Your task to perform on an android device: turn on translation in the chrome app Image 0: 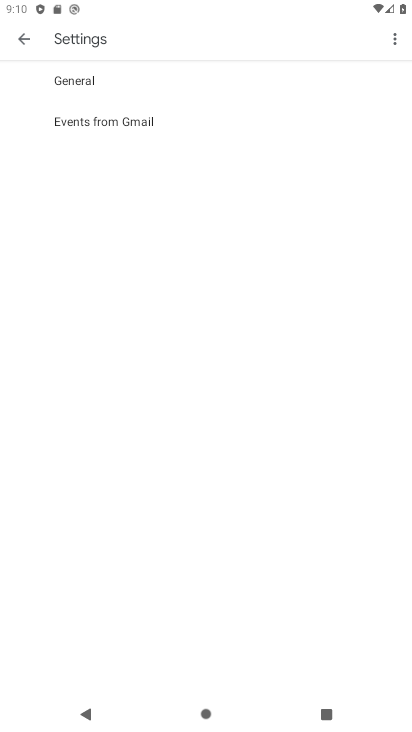
Step 0: press home button
Your task to perform on an android device: turn on translation in the chrome app Image 1: 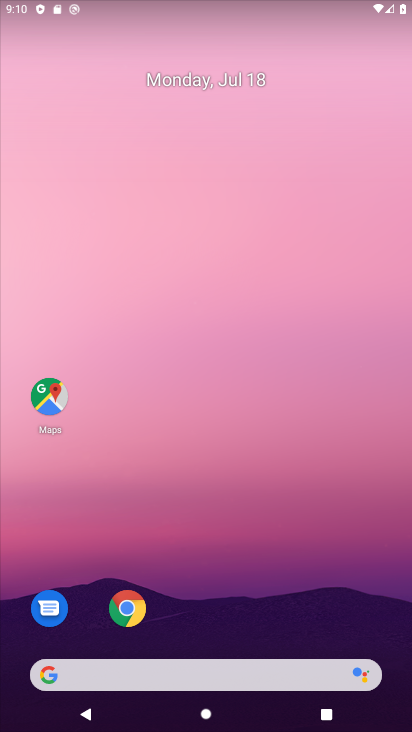
Step 1: click (143, 605)
Your task to perform on an android device: turn on translation in the chrome app Image 2: 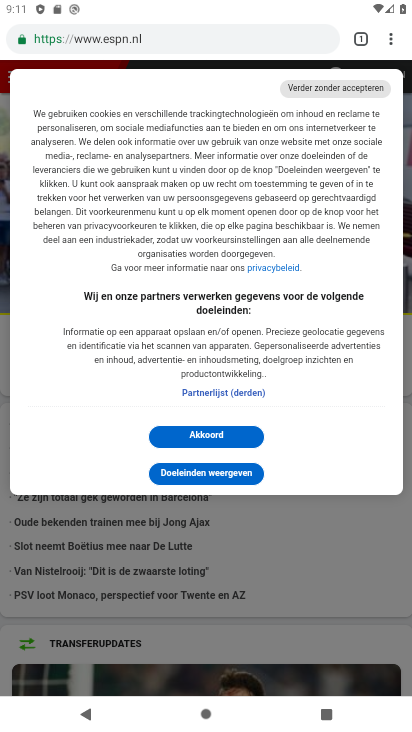
Step 2: click (389, 43)
Your task to perform on an android device: turn on translation in the chrome app Image 3: 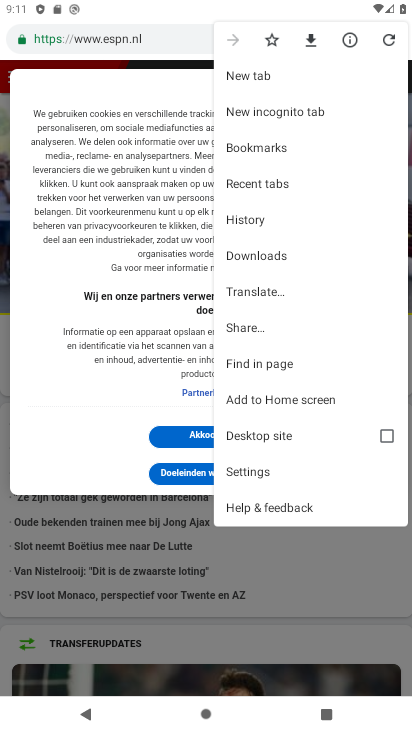
Step 3: click (241, 467)
Your task to perform on an android device: turn on translation in the chrome app Image 4: 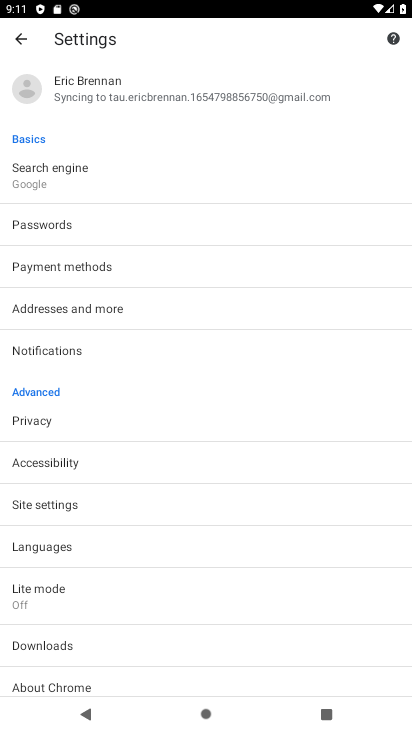
Step 4: click (63, 553)
Your task to perform on an android device: turn on translation in the chrome app Image 5: 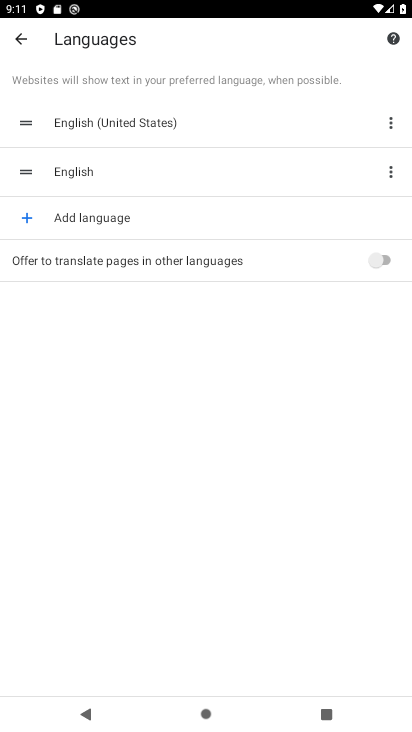
Step 5: click (341, 262)
Your task to perform on an android device: turn on translation in the chrome app Image 6: 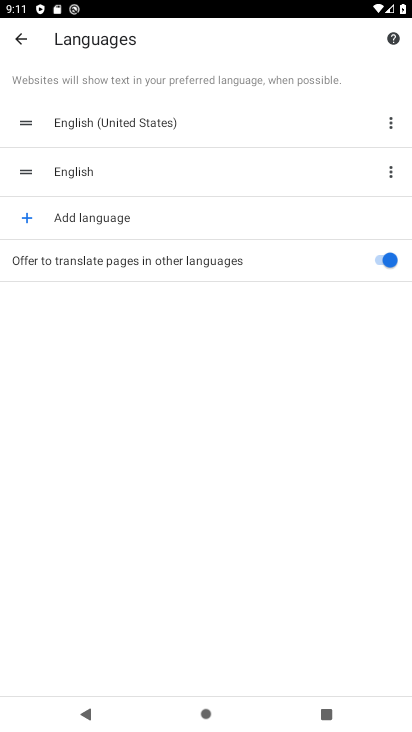
Step 6: task complete